Your task to perform on an android device: Search for Italian restaurants on Maps Image 0: 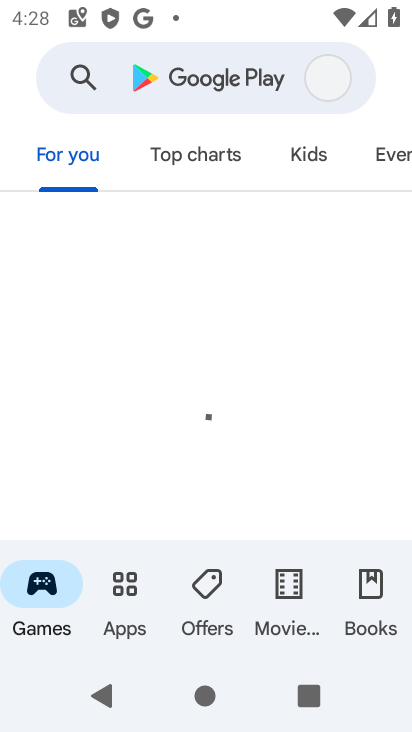
Step 0: press back button
Your task to perform on an android device: Search for Italian restaurants on Maps Image 1: 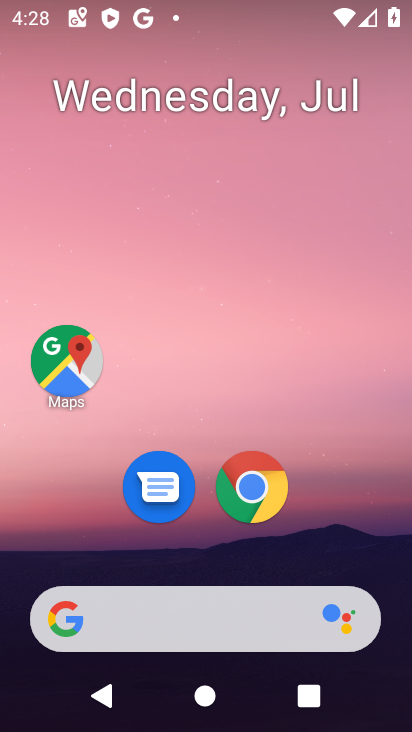
Step 1: click (69, 377)
Your task to perform on an android device: Search for Italian restaurants on Maps Image 2: 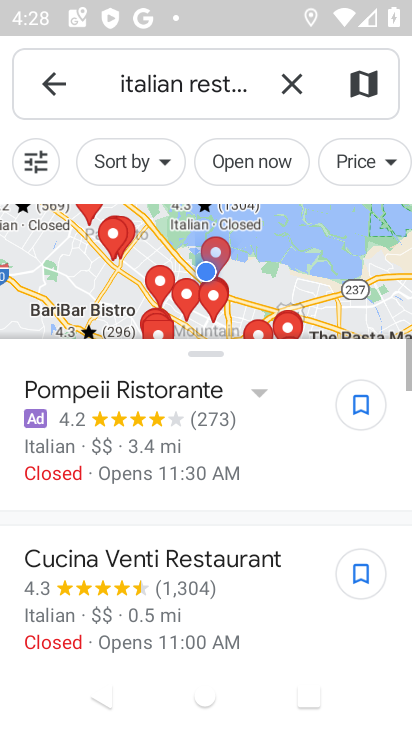
Step 2: click (296, 95)
Your task to perform on an android device: Search for Italian restaurants on Maps Image 3: 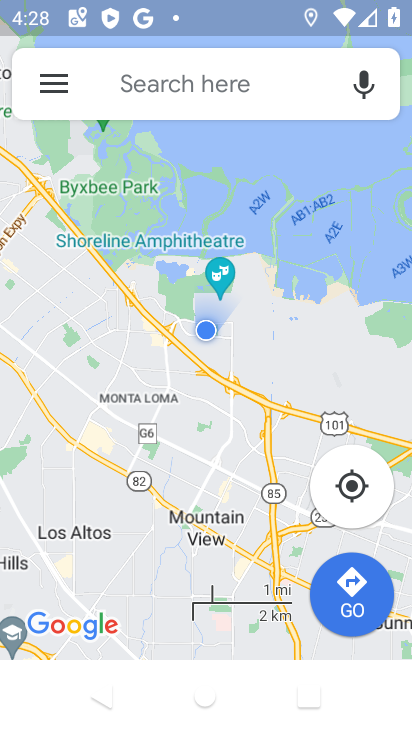
Step 3: click (199, 90)
Your task to perform on an android device: Search for Italian restaurants on Maps Image 4: 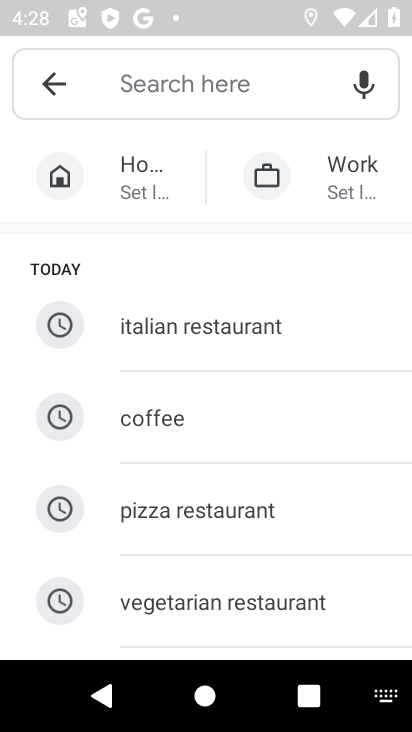
Step 4: click (200, 328)
Your task to perform on an android device: Search for Italian restaurants on Maps Image 5: 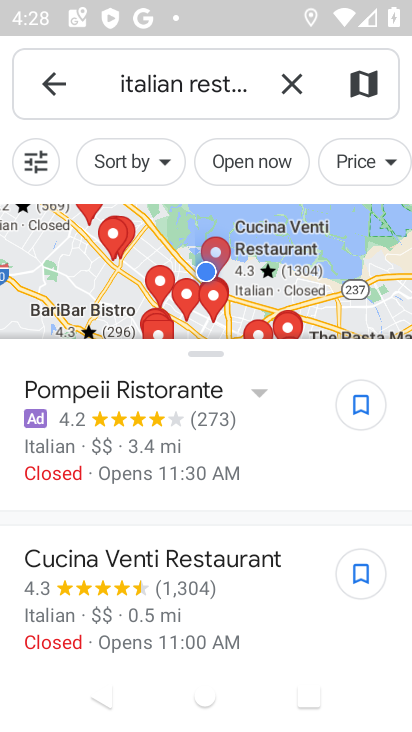
Step 5: task complete